Your task to perform on an android device: see creations saved in the google photos Image 0: 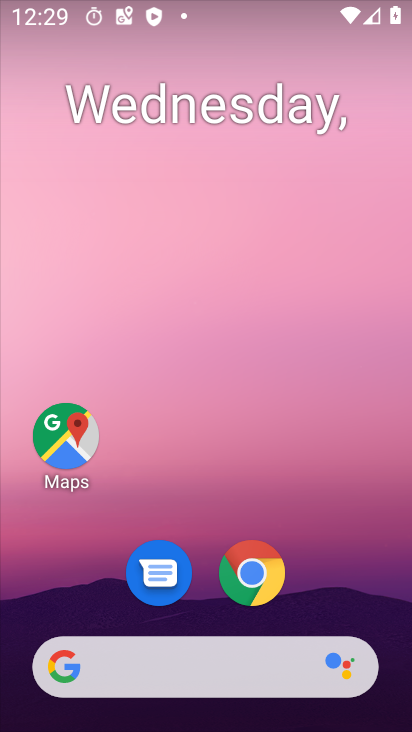
Step 0: drag from (342, 498) to (212, 104)
Your task to perform on an android device: see creations saved in the google photos Image 1: 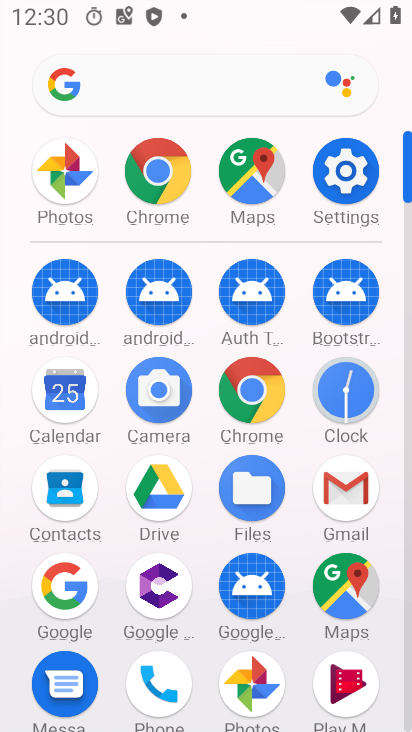
Step 1: click (253, 682)
Your task to perform on an android device: see creations saved in the google photos Image 2: 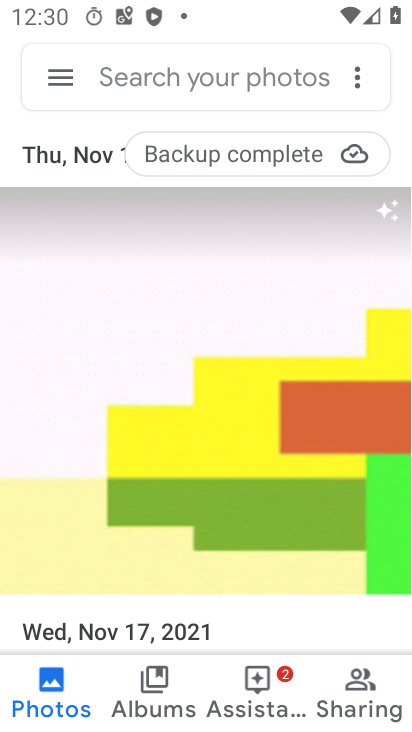
Step 2: press back button
Your task to perform on an android device: see creations saved in the google photos Image 3: 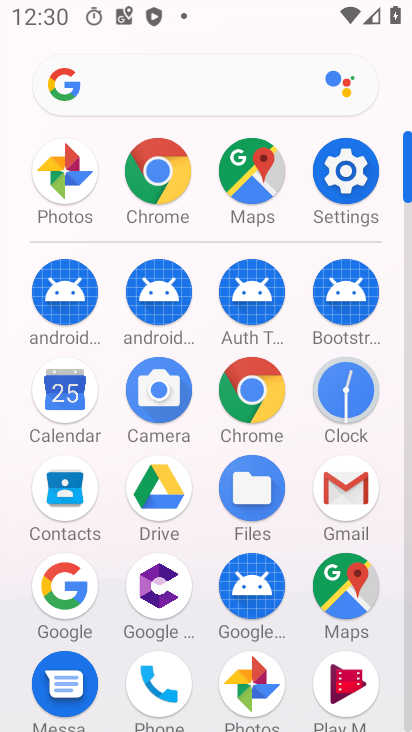
Step 3: click (249, 688)
Your task to perform on an android device: see creations saved in the google photos Image 4: 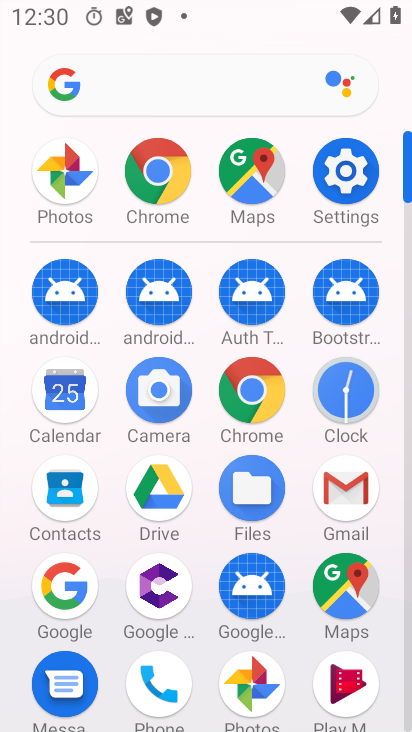
Step 4: click (249, 688)
Your task to perform on an android device: see creations saved in the google photos Image 5: 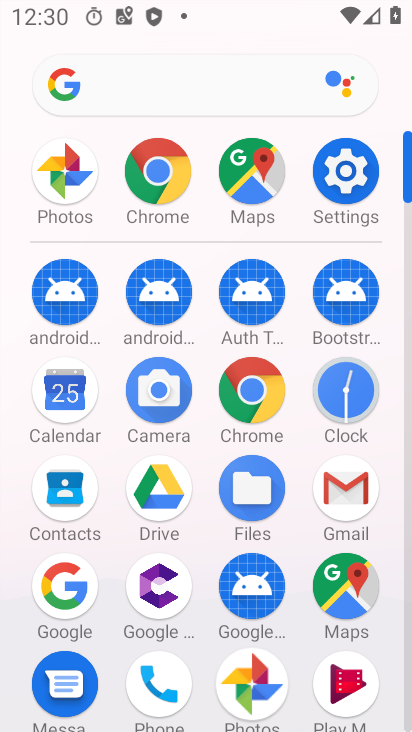
Step 5: click (250, 687)
Your task to perform on an android device: see creations saved in the google photos Image 6: 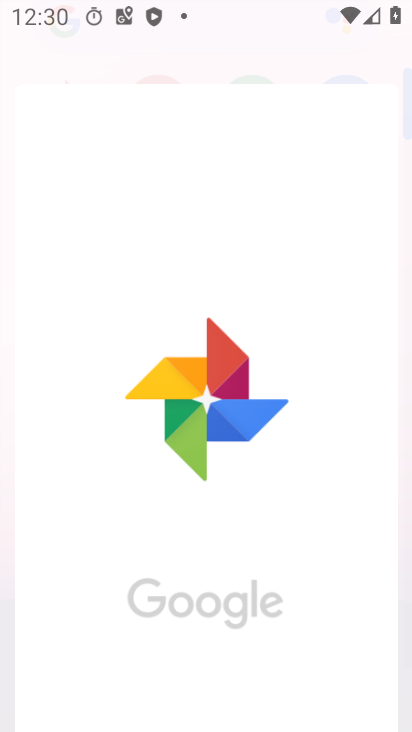
Step 6: click (251, 687)
Your task to perform on an android device: see creations saved in the google photos Image 7: 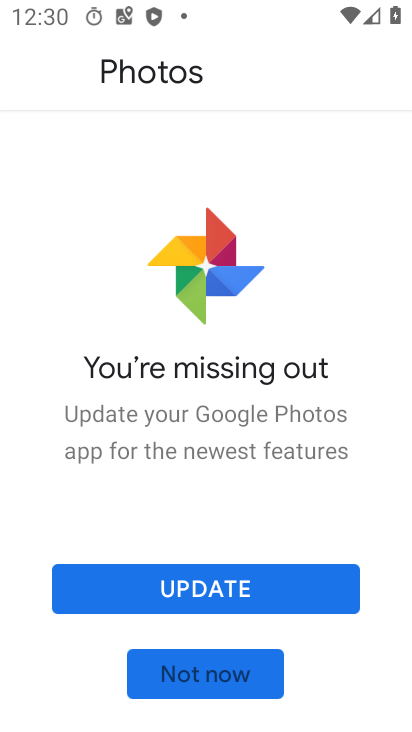
Step 7: click (221, 671)
Your task to perform on an android device: see creations saved in the google photos Image 8: 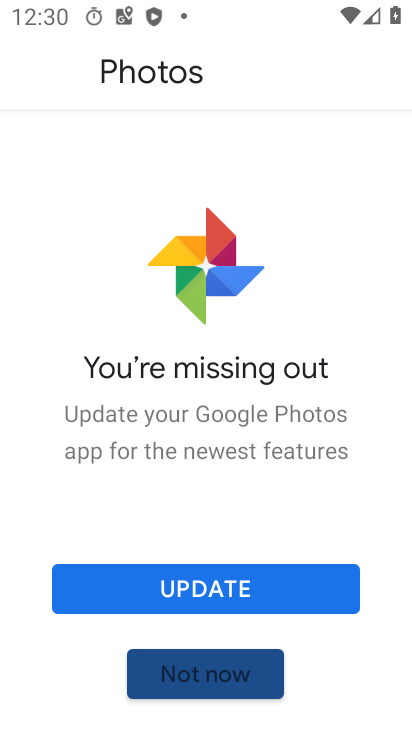
Step 8: click (221, 671)
Your task to perform on an android device: see creations saved in the google photos Image 9: 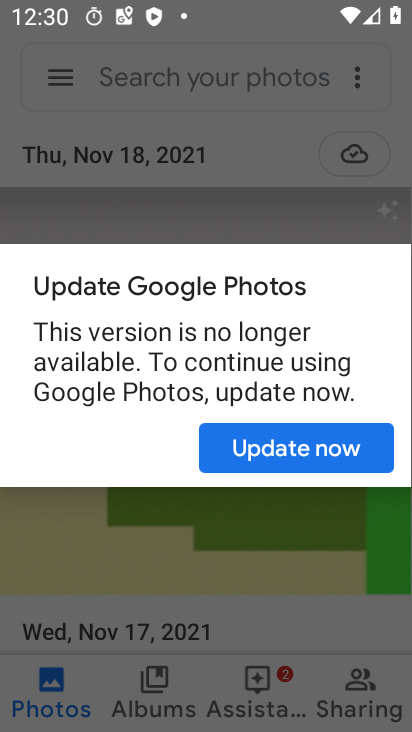
Step 9: click (295, 459)
Your task to perform on an android device: see creations saved in the google photos Image 10: 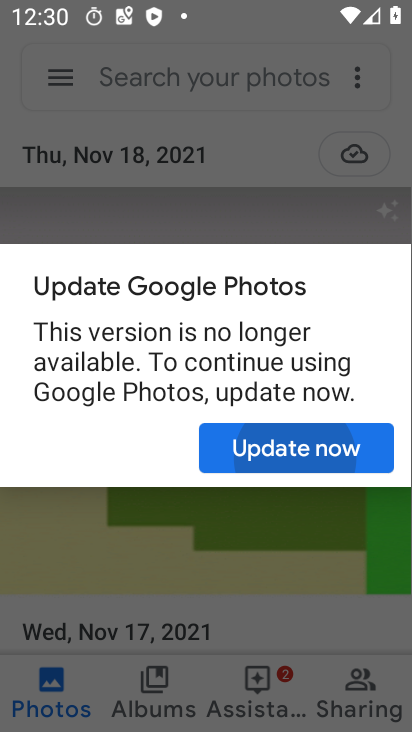
Step 10: click (295, 458)
Your task to perform on an android device: see creations saved in the google photos Image 11: 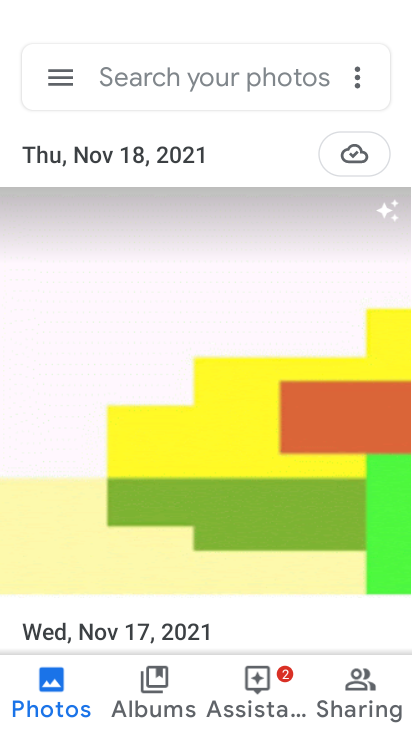
Step 11: click (296, 457)
Your task to perform on an android device: see creations saved in the google photos Image 12: 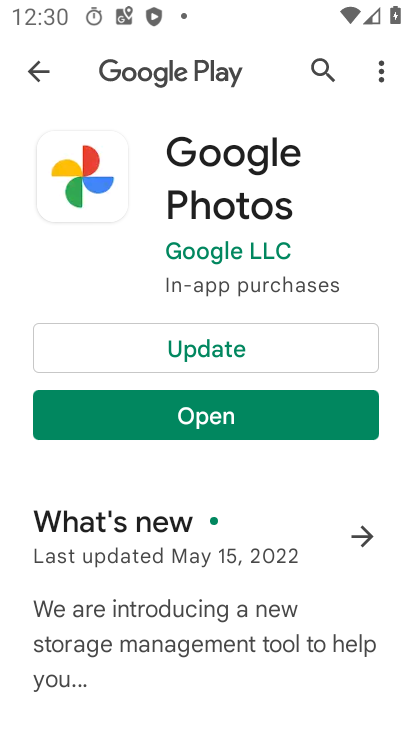
Step 12: click (191, 351)
Your task to perform on an android device: see creations saved in the google photos Image 13: 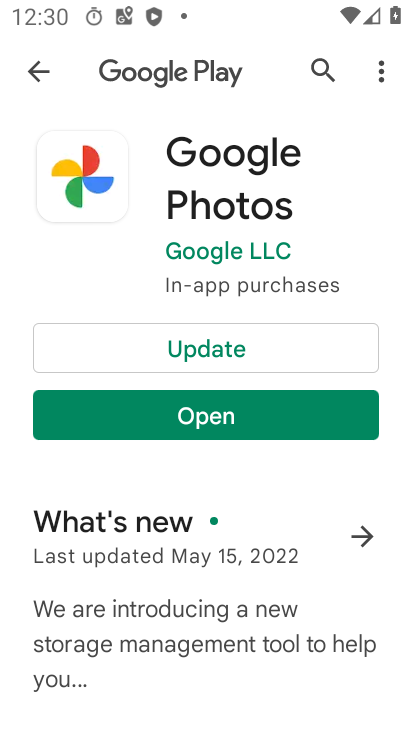
Step 13: click (193, 348)
Your task to perform on an android device: see creations saved in the google photos Image 14: 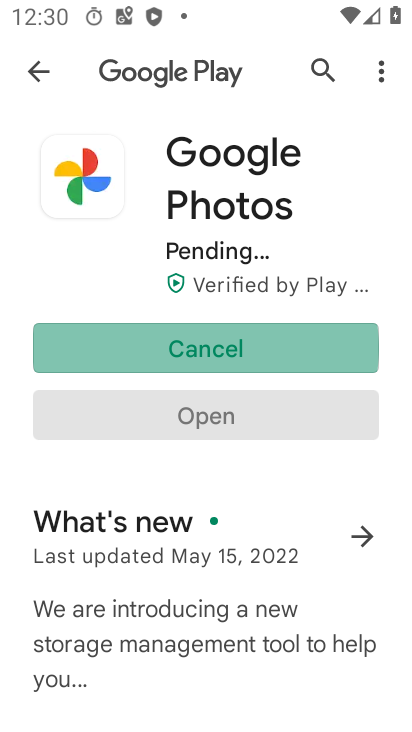
Step 14: click (195, 346)
Your task to perform on an android device: see creations saved in the google photos Image 15: 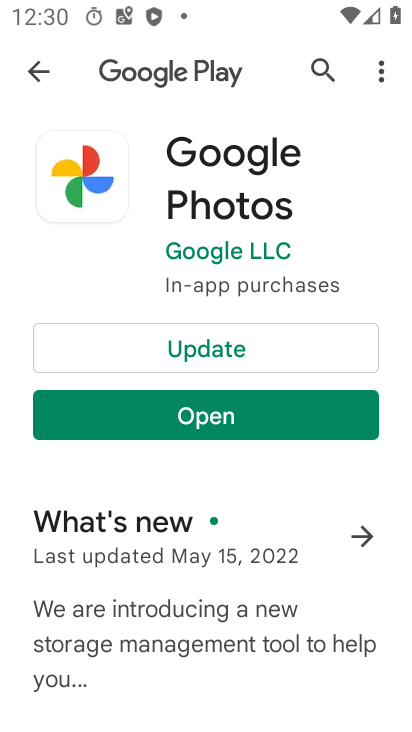
Step 15: click (200, 419)
Your task to perform on an android device: see creations saved in the google photos Image 16: 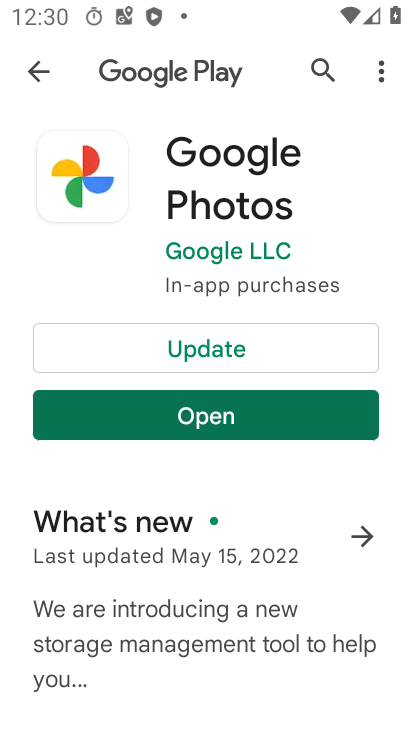
Step 16: click (203, 414)
Your task to perform on an android device: see creations saved in the google photos Image 17: 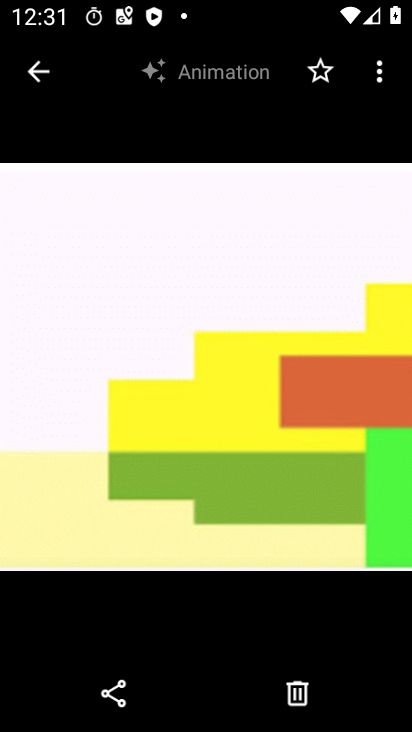
Step 17: click (37, 58)
Your task to perform on an android device: see creations saved in the google photos Image 18: 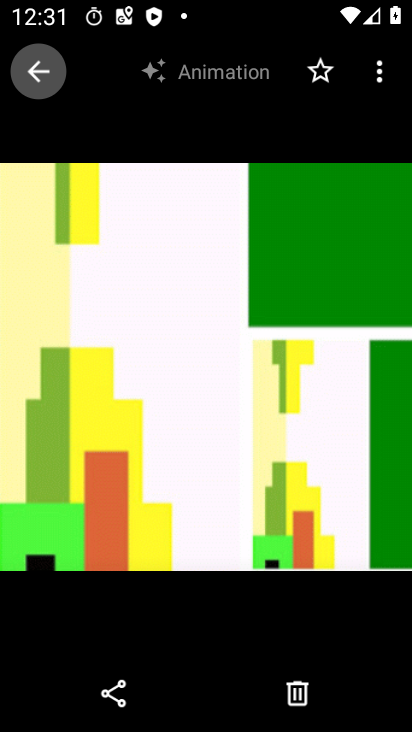
Step 18: click (38, 57)
Your task to perform on an android device: see creations saved in the google photos Image 19: 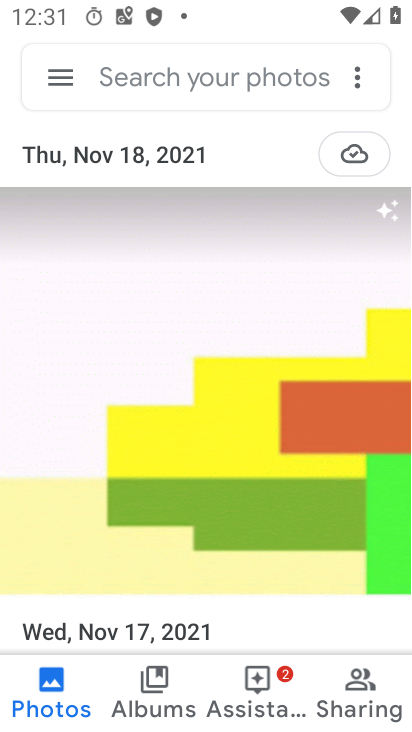
Step 19: task complete